Your task to perform on an android device: turn smart compose on in the gmail app Image 0: 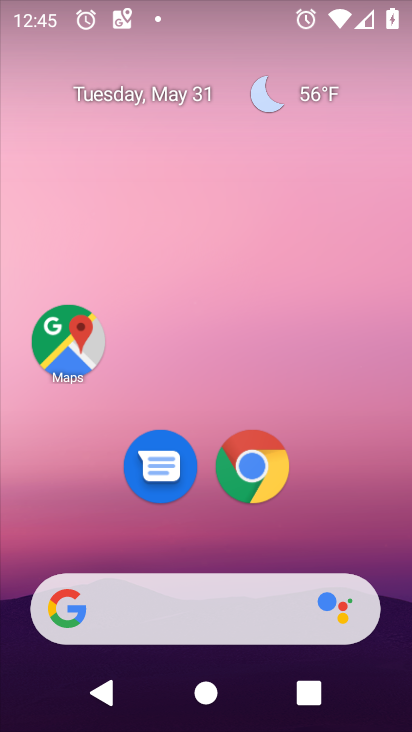
Step 0: drag from (207, 607) to (177, 1)
Your task to perform on an android device: turn smart compose on in the gmail app Image 1: 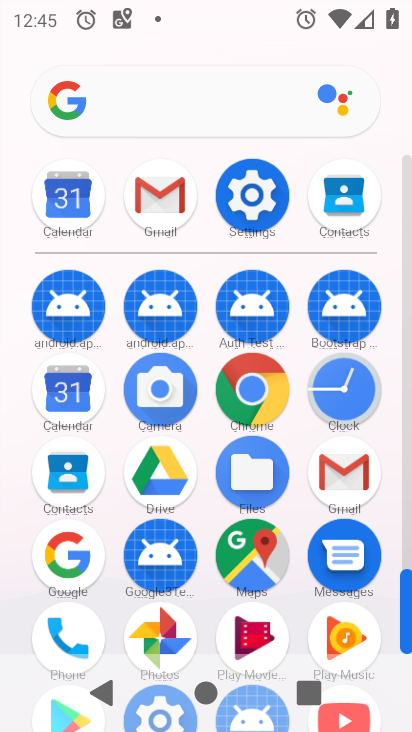
Step 1: click (171, 198)
Your task to perform on an android device: turn smart compose on in the gmail app Image 2: 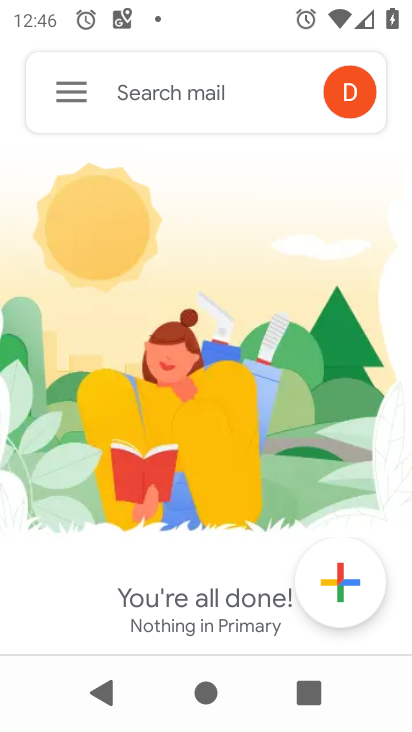
Step 2: click (70, 103)
Your task to perform on an android device: turn smart compose on in the gmail app Image 3: 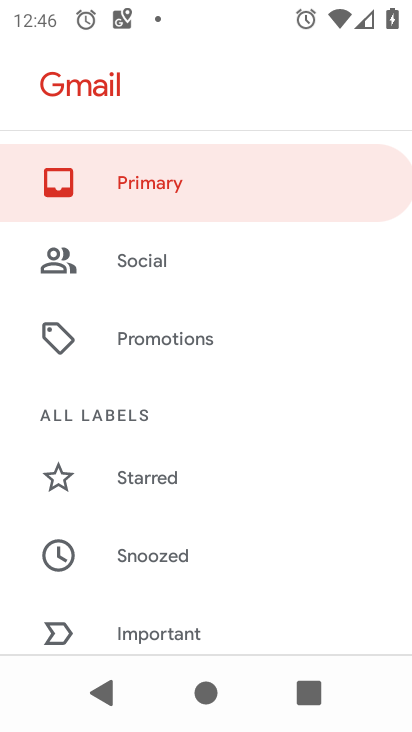
Step 3: drag from (209, 503) to (162, 68)
Your task to perform on an android device: turn smart compose on in the gmail app Image 4: 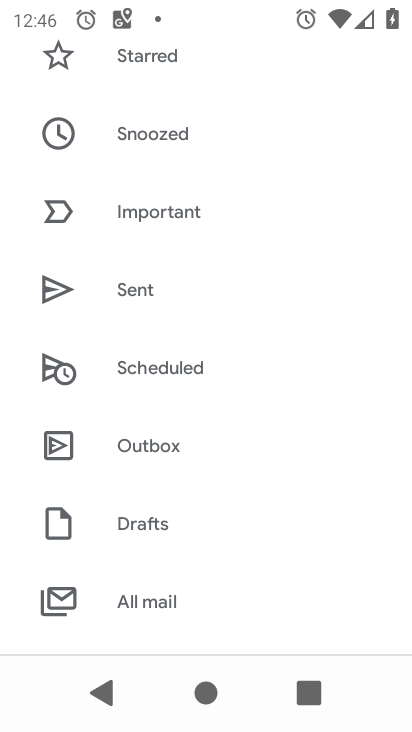
Step 4: drag from (215, 531) to (184, 94)
Your task to perform on an android device: turn smart compose on in the gmail app Image 5: 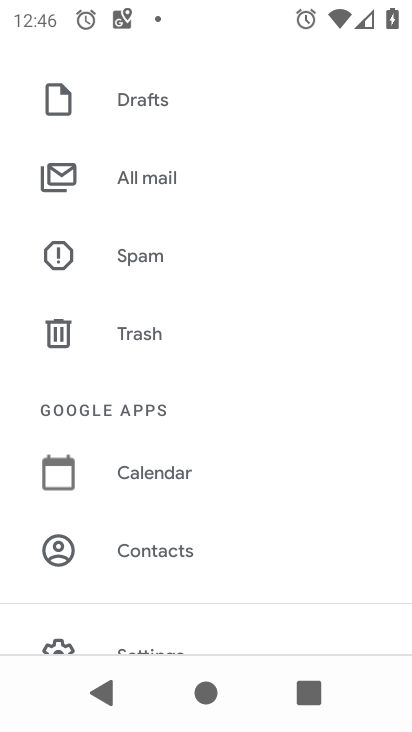
Step 5: drag from (186, 585) to (165, 126)
Your task to perform on an android device: turn smart compose on in the gmail app Image 6: 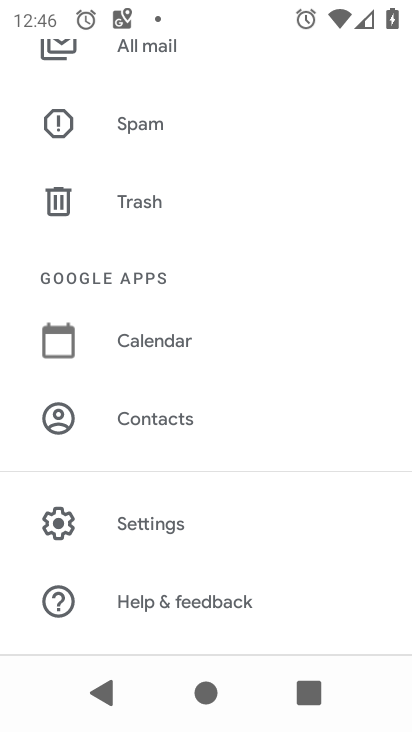
Step 6: click (175, 523)
Your task to perform on an android device: turn smart compose on in the gmail app Image 7: 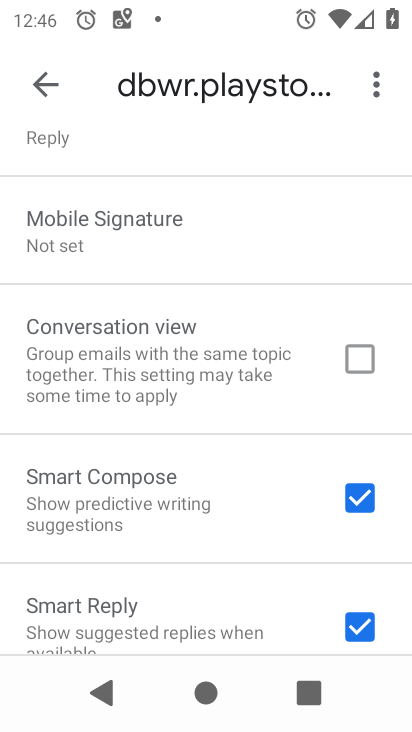
Step 7: task complete